Your task to perform on an android device: open app "Adobe Acrobat Reader" Image 0: 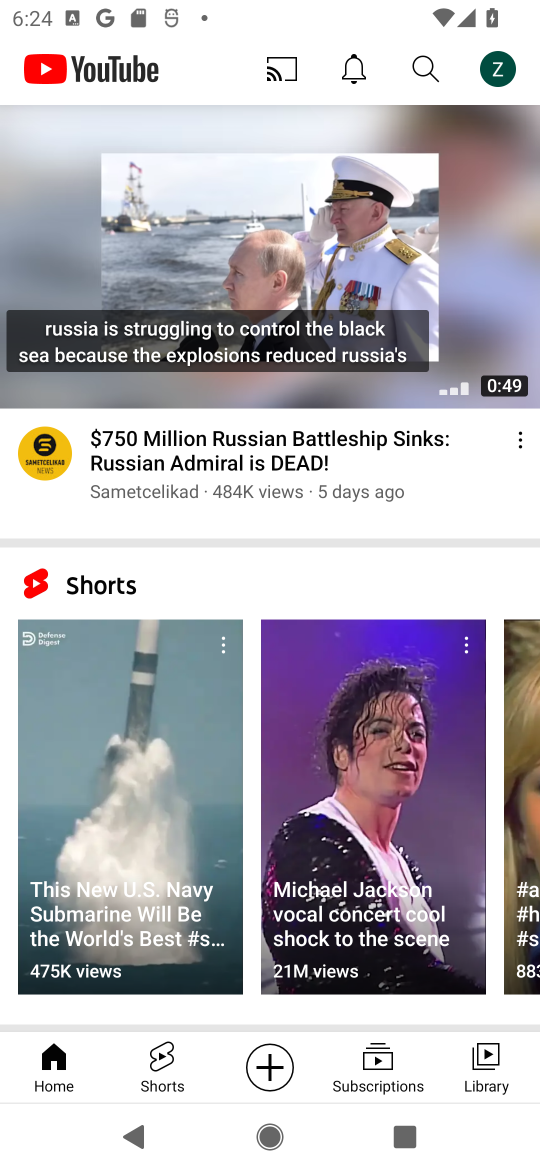
Step 0: press home button
Your task to perform on an android device: open app "Adobe Acrobat Reader" Image 1: 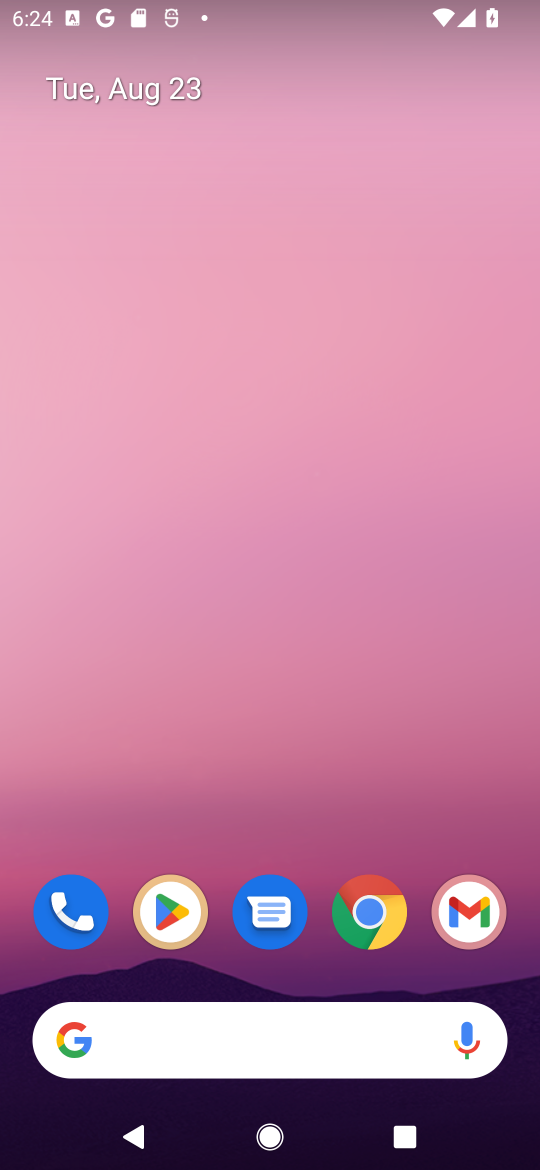
Step 1: drag from (263, 841) to (357, 258)
Your task to perform on an android device: open app "Adobe Acrobat Reader" Image 2: 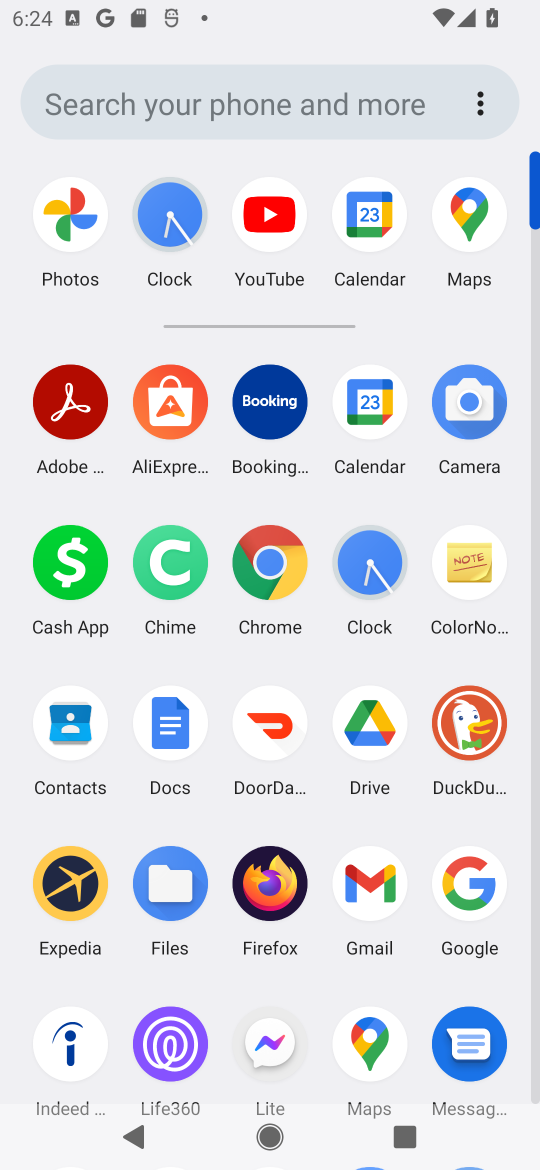
Step 2: drag from (220, 936) to (309, 322)
Your task to perform on an android device: open app "Adobe Acrobat Reader" Image 3: 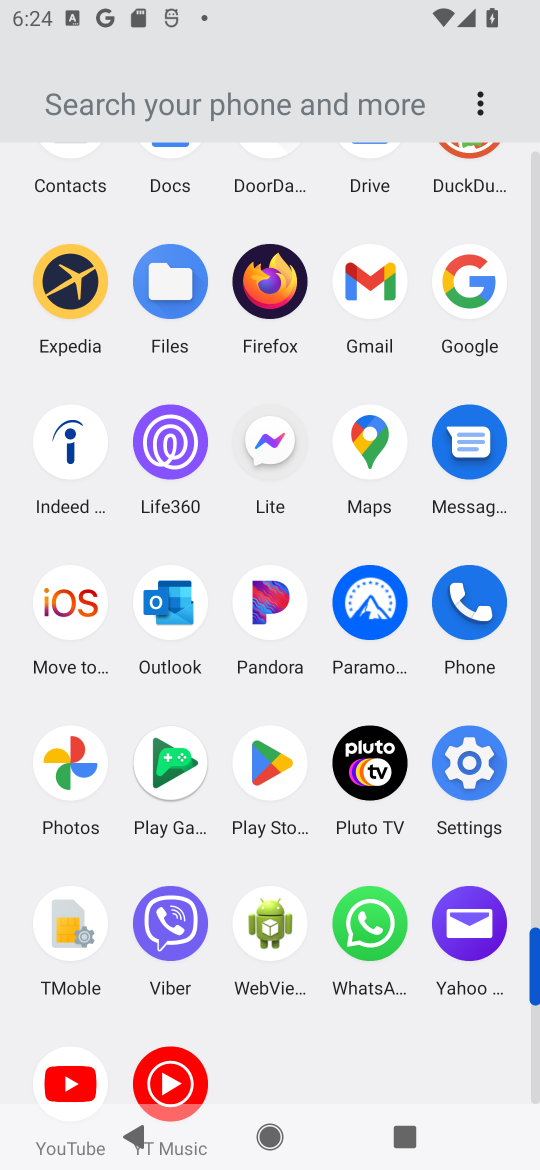
Step 3: click (252, 761)
Your task to perform on an android device: open app "Adobe Acrobat Reader" Image 4: 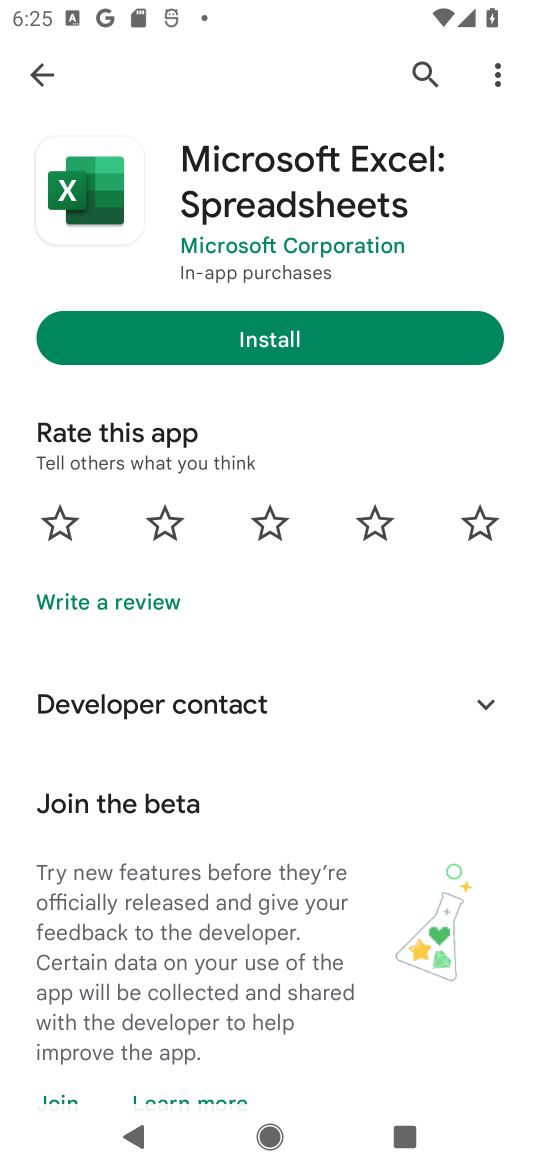
Step 4: click (33, 75)
Your task to perform on an android device: open app "Adobe Acrobat Reader" Image 5: 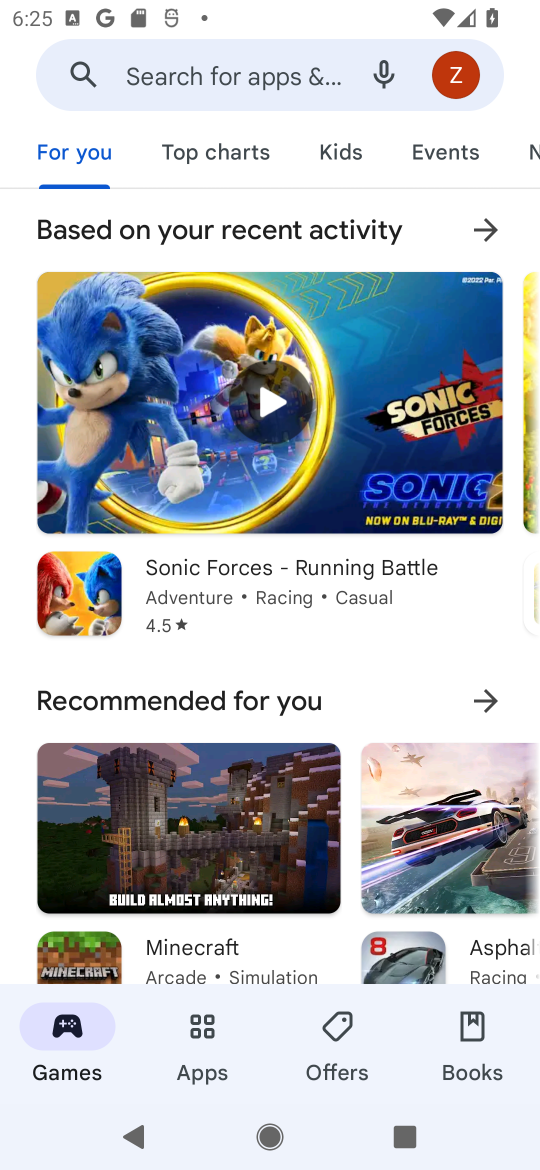
Step 5: click (207, 76)
Your task to perform on an android device: open app "Adobe Acrobat Reader" Image 6: 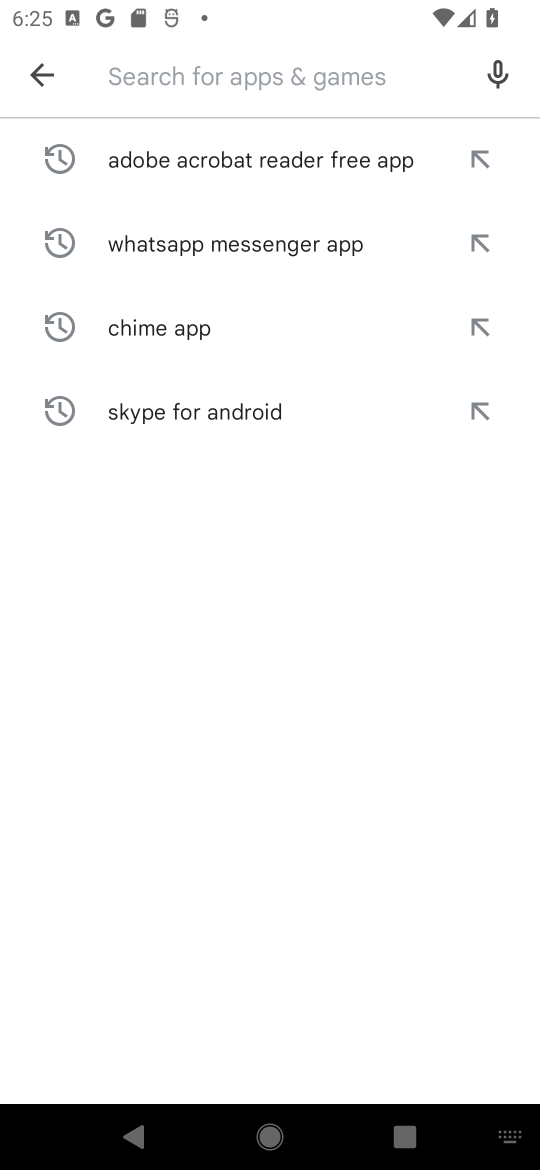
Step 6: type "Adobe Acrobat Reade "
Your task to perform on an android device: open app "Adobe Acrobat Reader" Image 7: 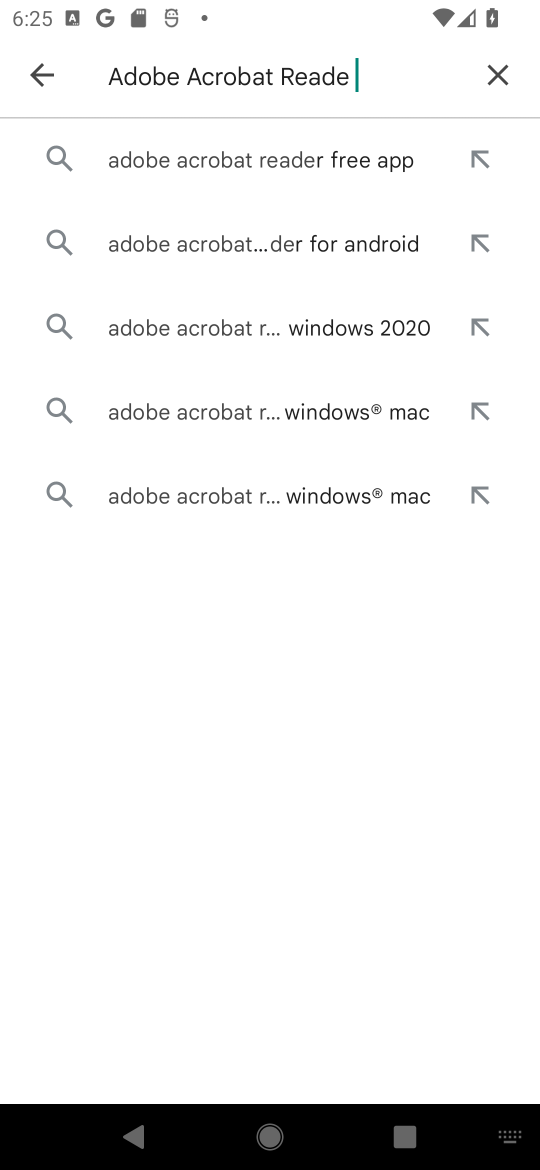
Step 7: click (343, 169)
Your task to perform on an android device: open app "Adobe Acrobat Reader" Image 8: 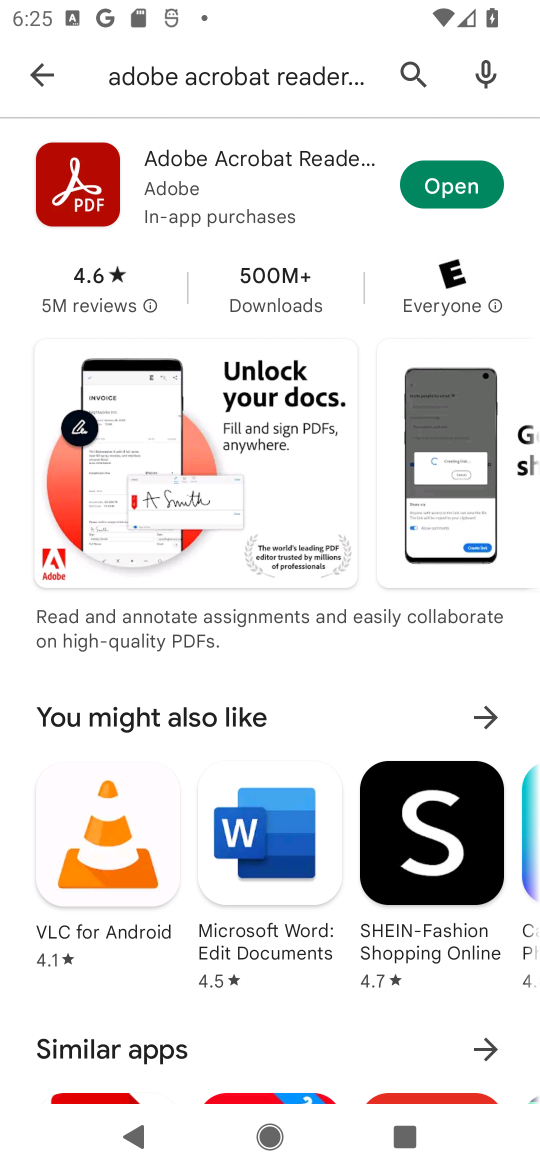
Step 8: click (463, 167)
Your task to perform on an android device: open app "Adobe Acrobat Reader" Image 9: 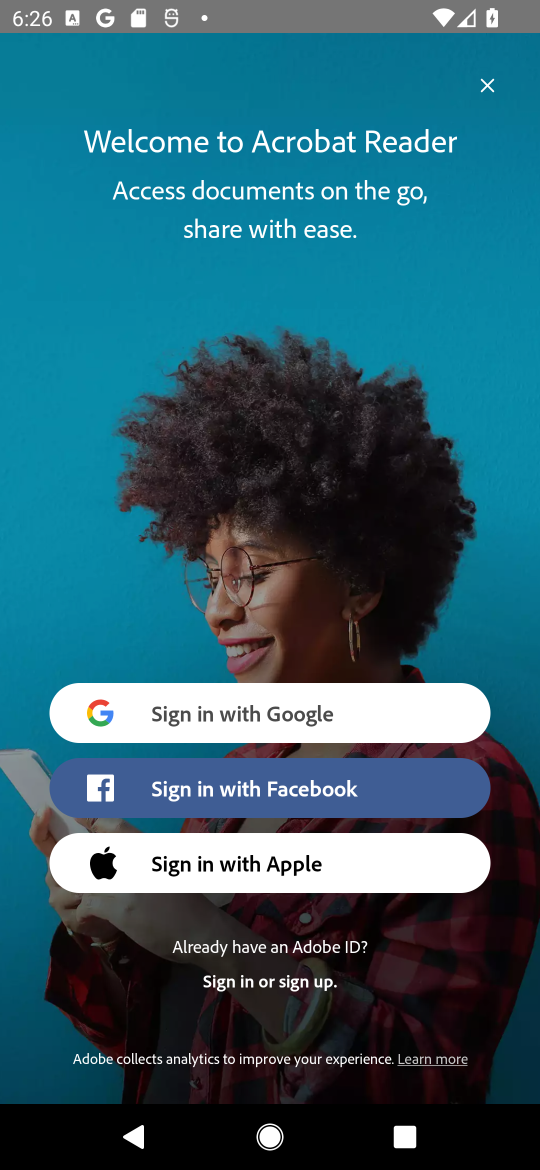
Step 9: task complete